Your task to perform on an android device: find photos in the google photos app Image 0: 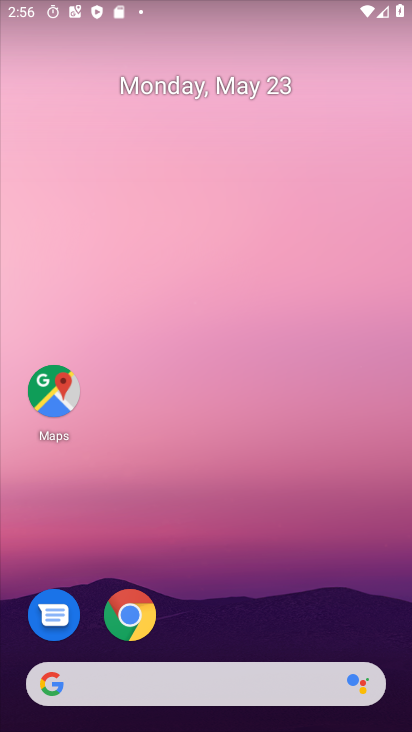
Step 0: drag from (305, 570) to (353, 6)
Your task to perform on an android device: find photos in the google photos app Image 1: 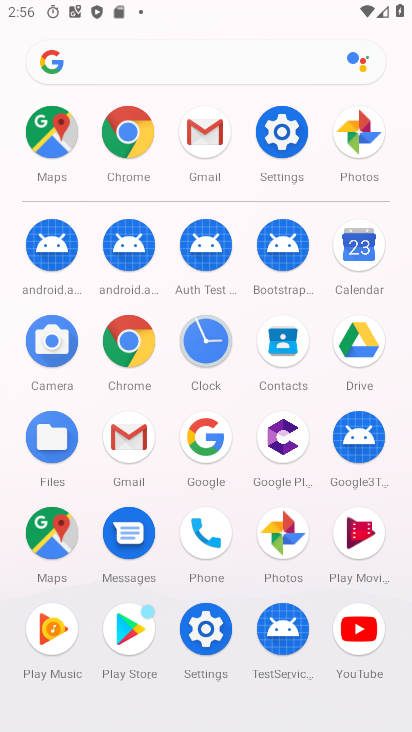
Step 1: click (354, 132)
Your task to perform on an android device: find photos in the google photos app Image 2: 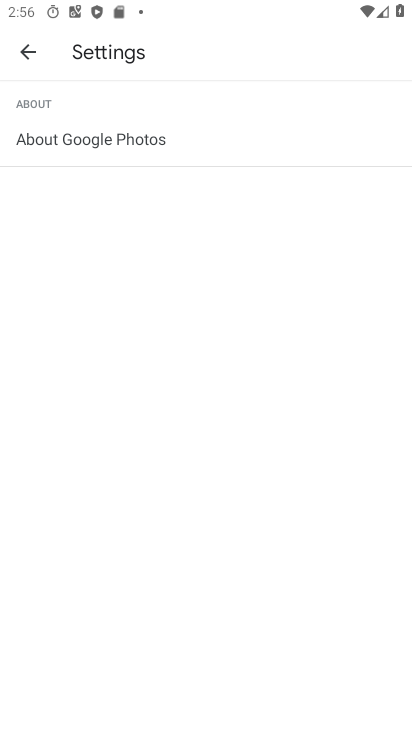
Step 2: click (23, 53)
Your task to perform on an android device: find photos in the google photos app Image 3: 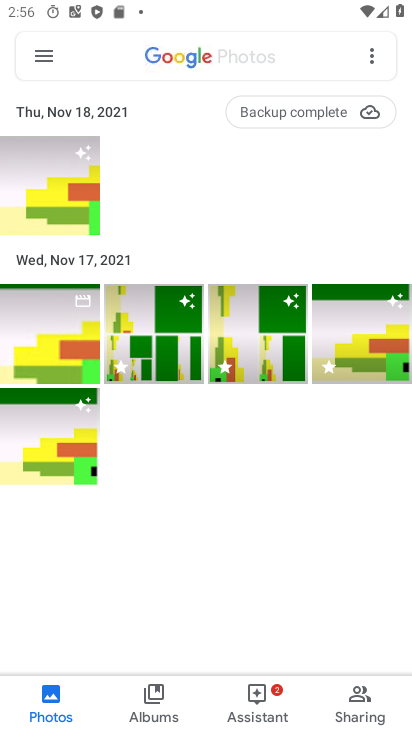
Step 3: click (47, 709)
Your task to perform on an android device: find photos in the google photos app Image 4: 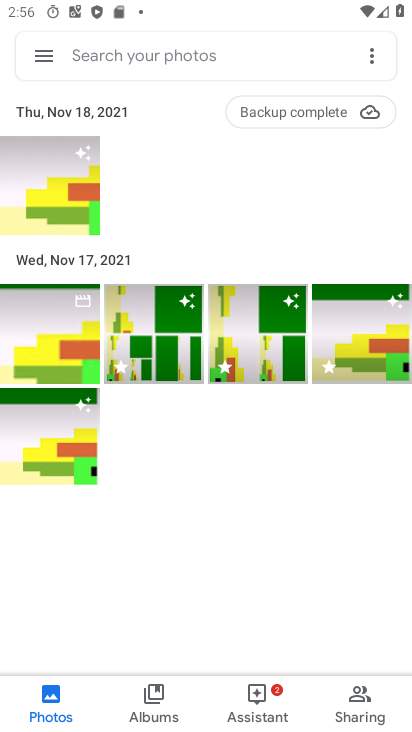
Step 4: task complete